Your task to perform on an android device: check out phone information Image 0: 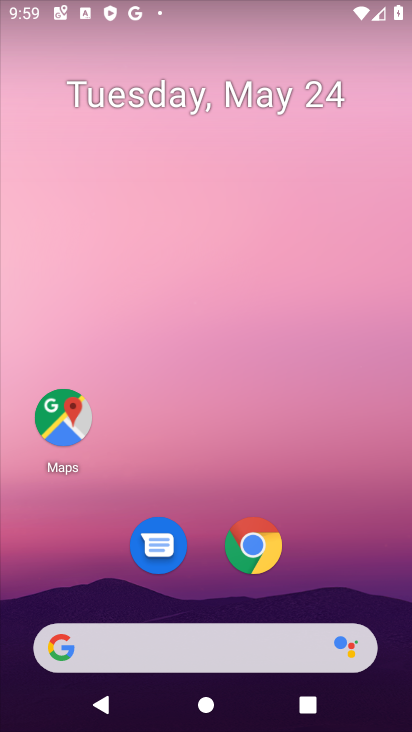
Step 0: drag from (250, 448) to (291, 0)
Your task to perform on an android device: check out phone information Image 1: 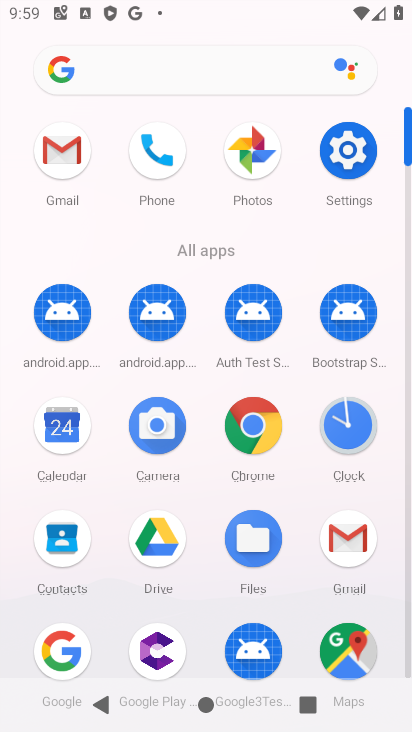
Step 1: drag from (200, 488) to (233, 204)
Your task to perform on an android device: check out phone information Image 2: 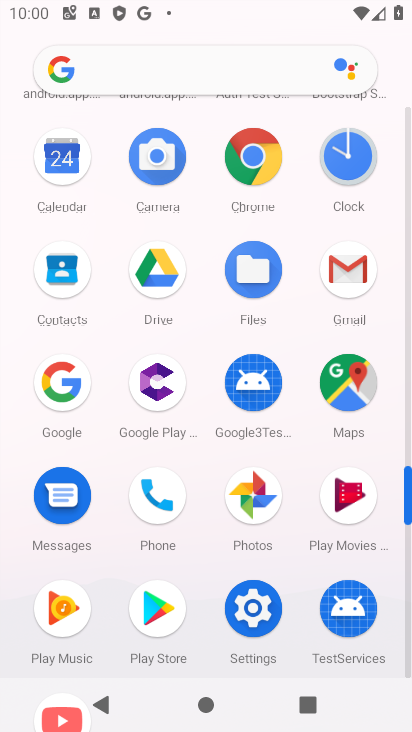
Step 2: click (158, 483)
Your task to perform on an android device: check out phone information Image 3: 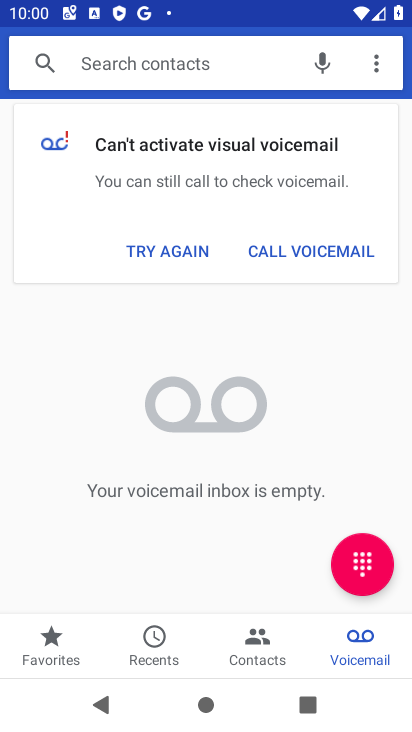
Step 3: click (378, 68)
Your task to perform on an android device: check out phone information Image 4: 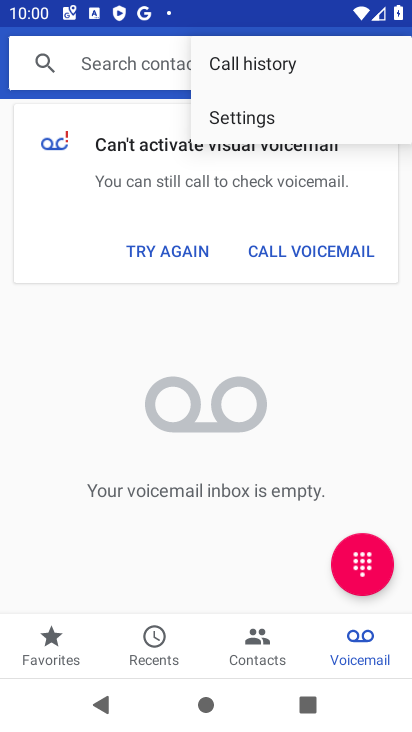
Step 4: click (334, 113)
Your task to perform on an android device: check out phone information Image 5: 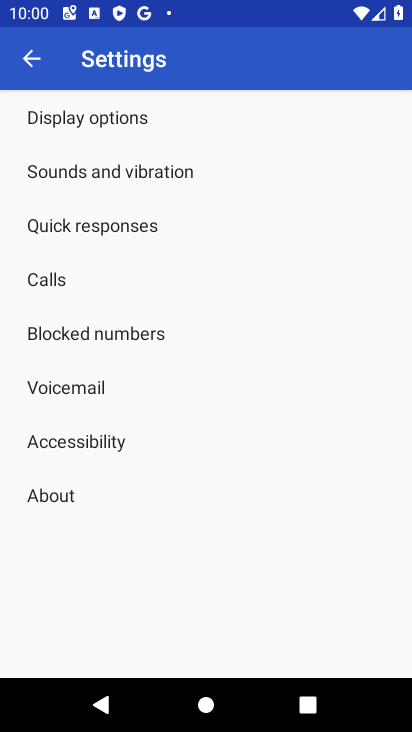
Step 5: click (70, 492)
Your task to perform on an android device: check out phone information Image 6: 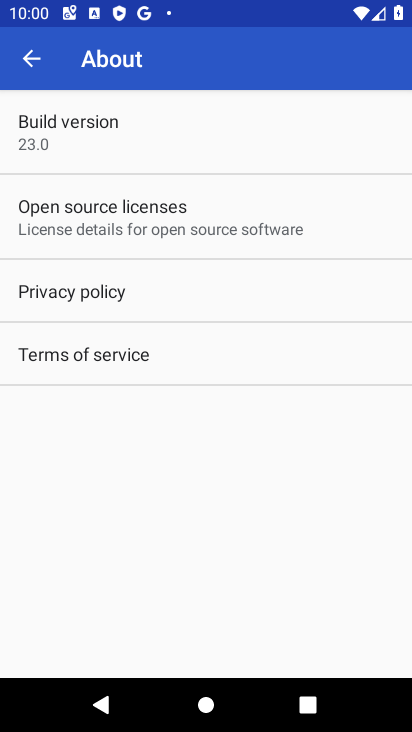
Step 6: task complete